Your task to perform on an android device: When is my next appointment? Image 0: 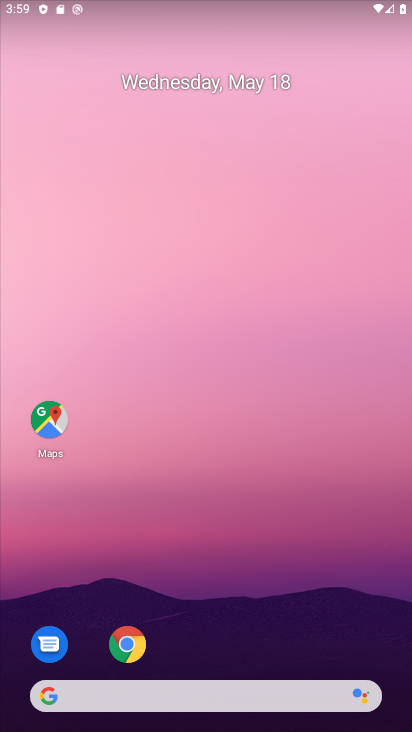
Step 0: drag from (216, 679) to (159, 77)
Your task to perform on an android device: When is my next appointment? Image 1: 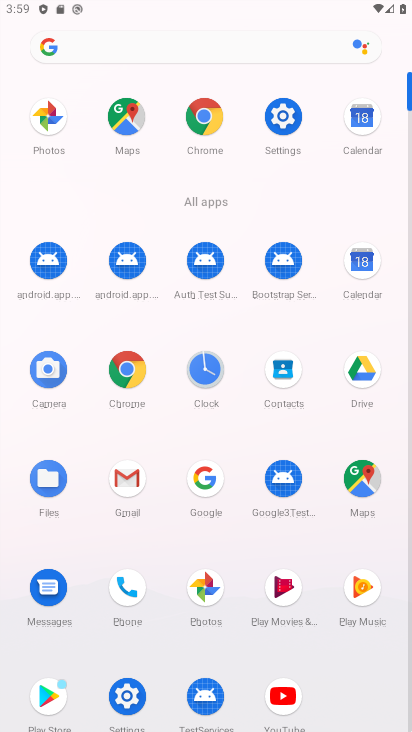
Step 1: click (366, 264)
Your task to perform on an android device: When is my next appointment? Image 2: 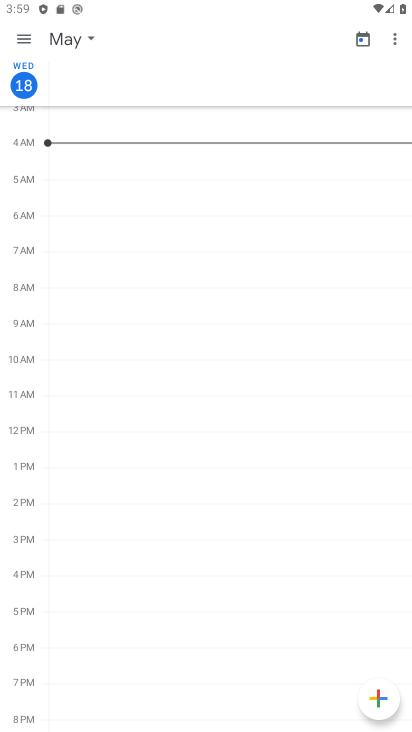
Step 2: task complete